Your task to perform on an android device: change timer sound Image 0: 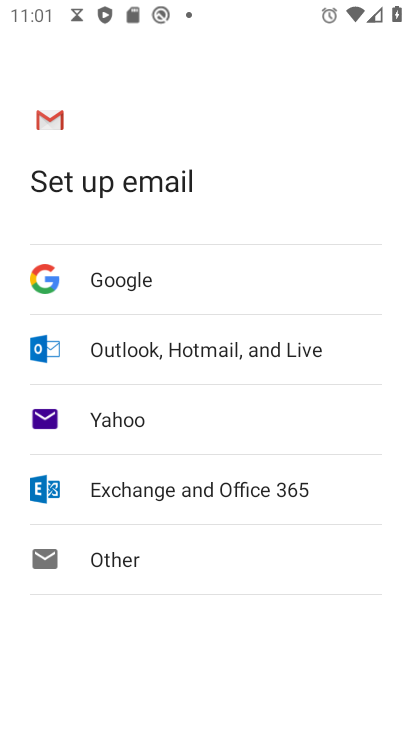
Step 0: press home button
Your task to perform on an android device: change timer sound Image 1: 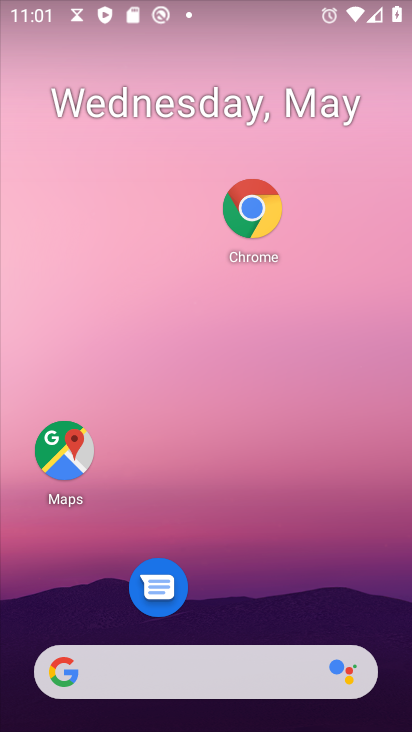
Step 1: drag from (203, 617) to (240, 2)
Your task to perform on an android device: change timer sound Image 2: 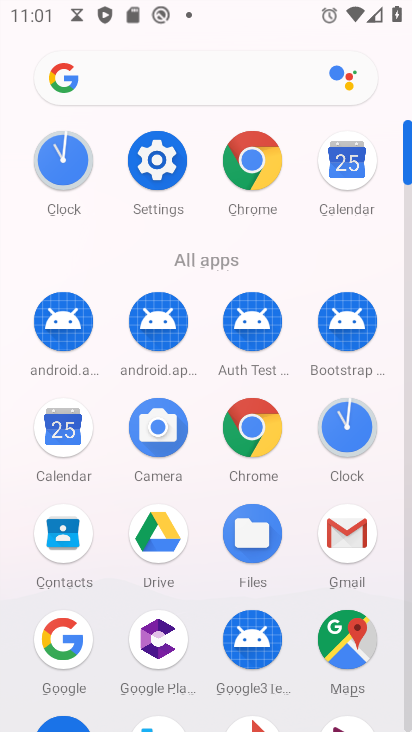
Step 2: click (344, 433)
Your task to perform on an android device: change timer sound Image 3: 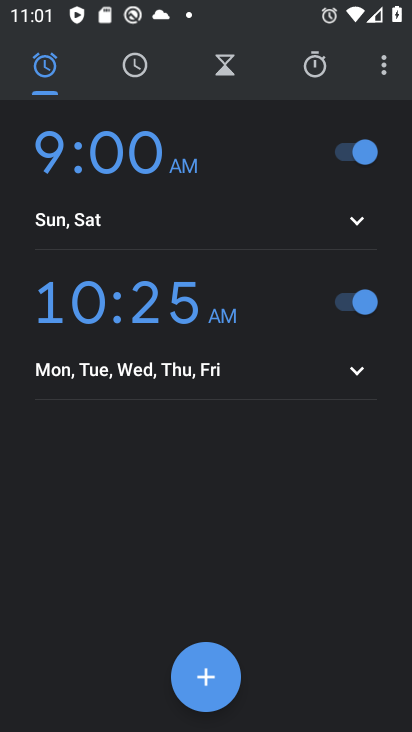
Step 3: click (381, 65)
Your task to perform on an android device: change timer sound Image 4: 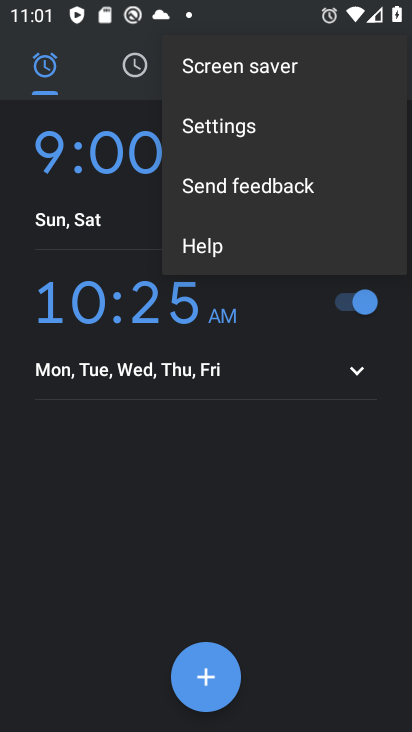
Step 4: click (281, 139)
Your task to perform on an android device: change timer sound Image 5: 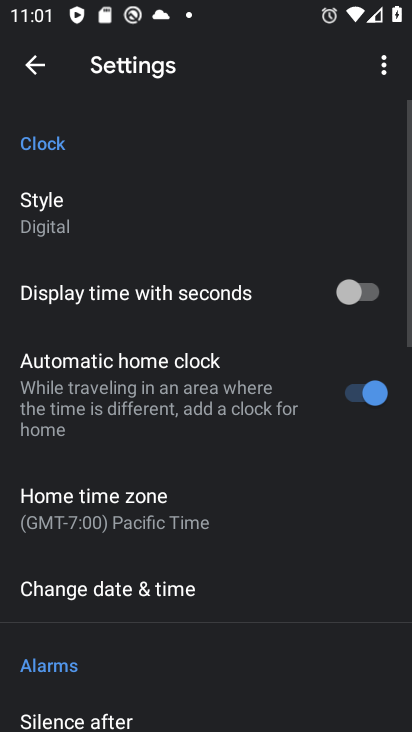
Step 5: drag from (160, 614) to (171, 256)
Your task to perform on an android device: change timer sound Image 6: 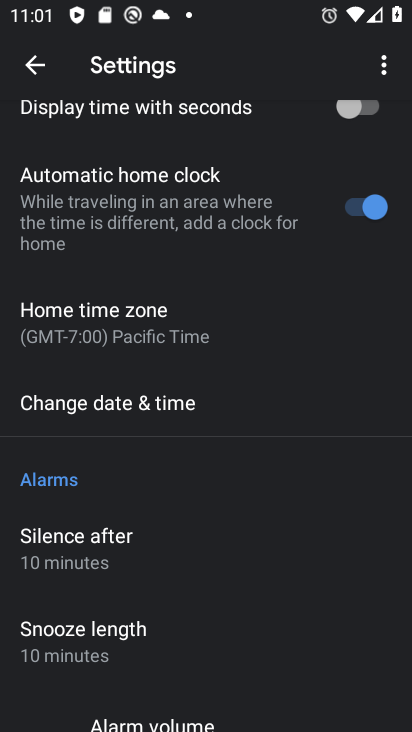
Step 6: drag from (180, 537) to (282, 94)
Your task to perform on an android device: change timer sound Image 7: 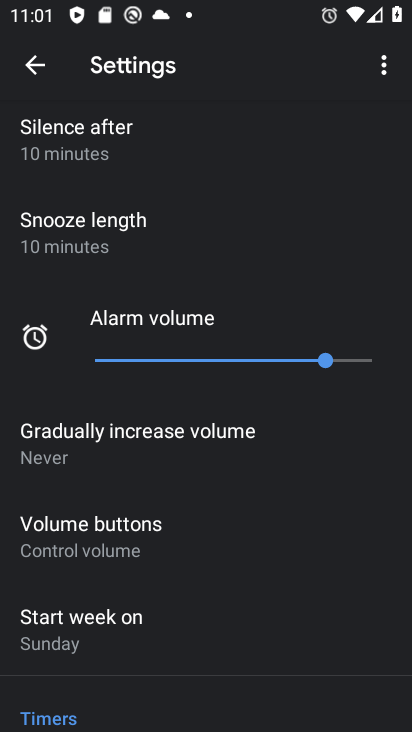
Step 7: drag from (140, 626) to (282, 123)
Your task to perform on an android device: change timer sound Image 8: 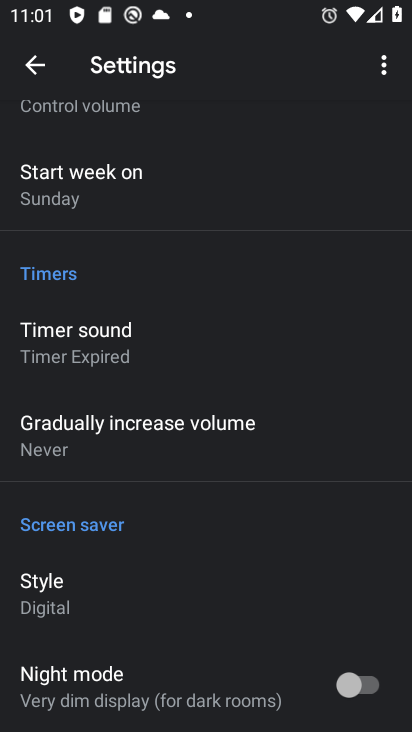
Step 8: click (50, 332)
Your task to perform on an android device: change timer sound Image 9: 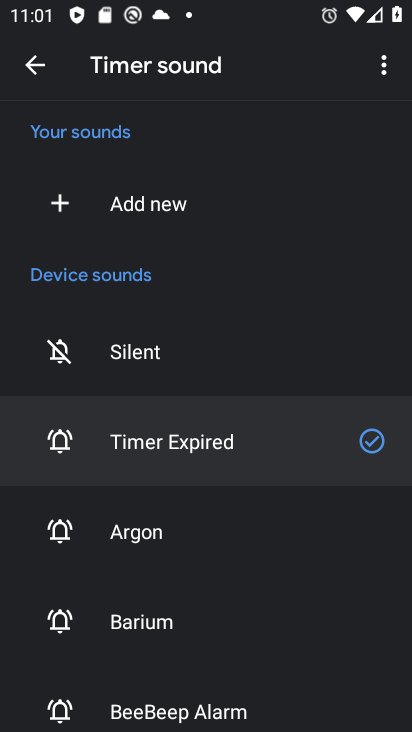
Step 9: click (137, 534)
Your task to perform on an android device: change timer sound Image 10: 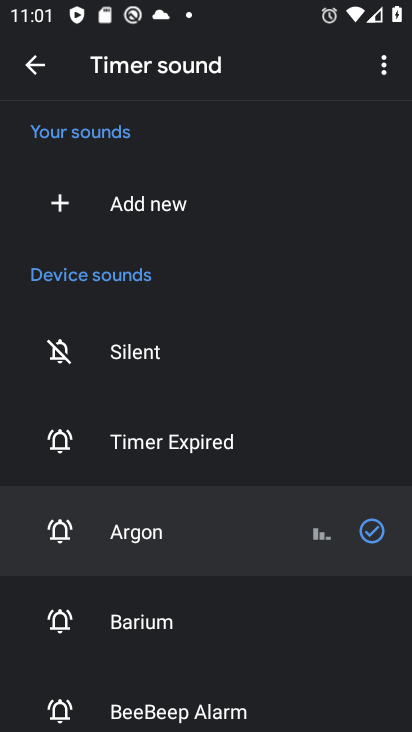
Step 10: task complete